Your task to perform on an android device: Search for hotels in San Francisco Image 0: 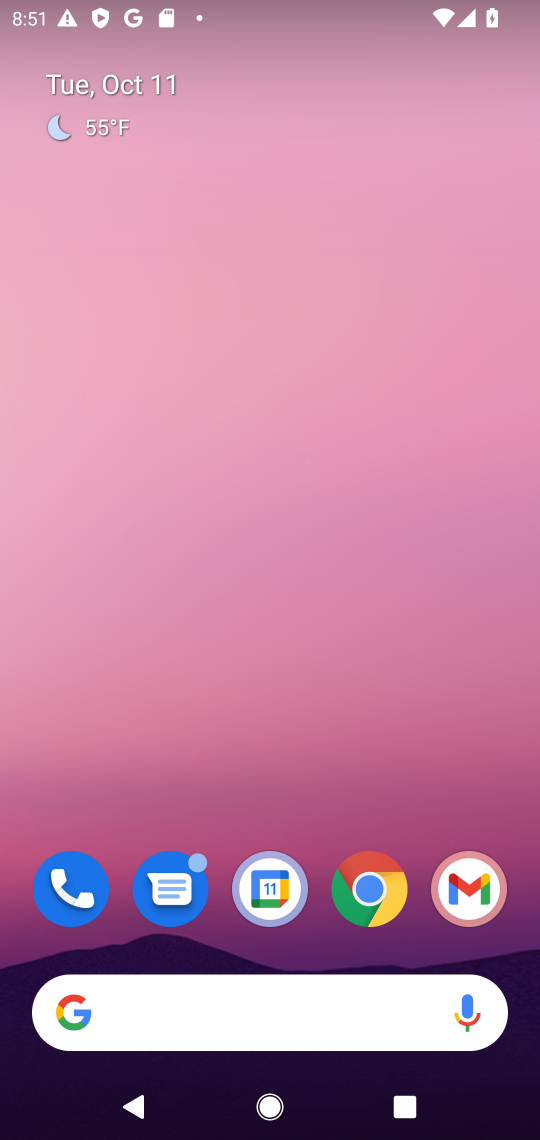
Step 0: click (276, 1031)
Your task to perform on an android device: Search for hotels in San Francisco Image 1: 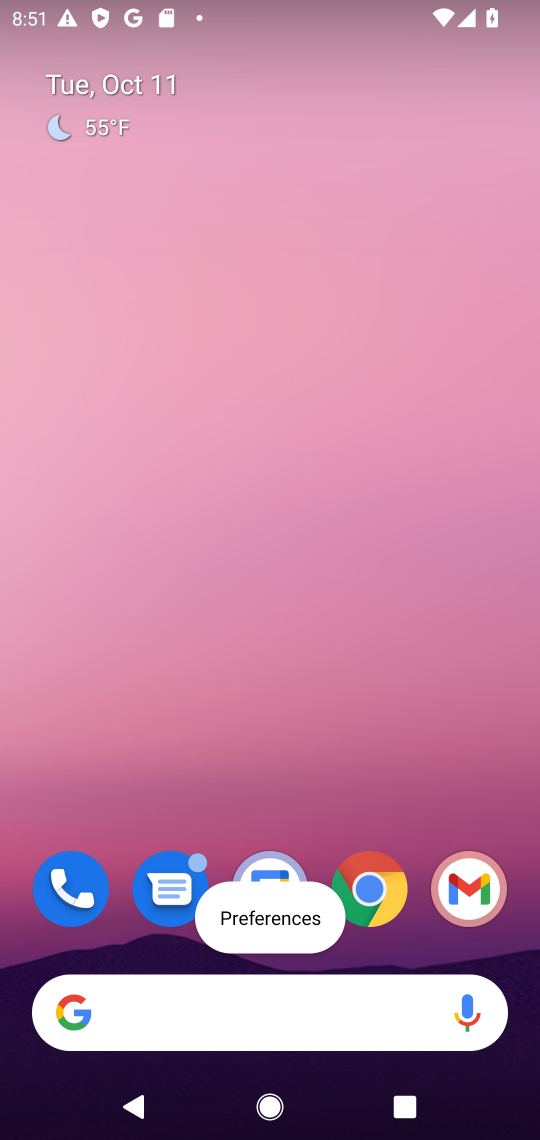
Step 1: click (200, 1014)
Your task to perform on an android device: Search for hotels in San Francisco Image 2: 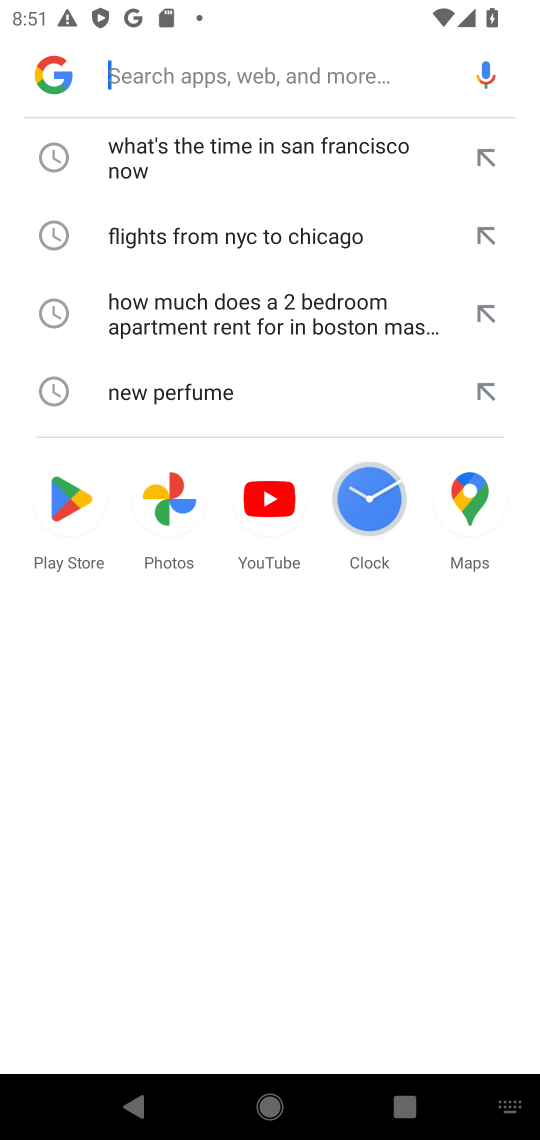
Step 2: click (247, 96)
Your task to perform on an android device: Search for hotels in San Francisco Image 3: 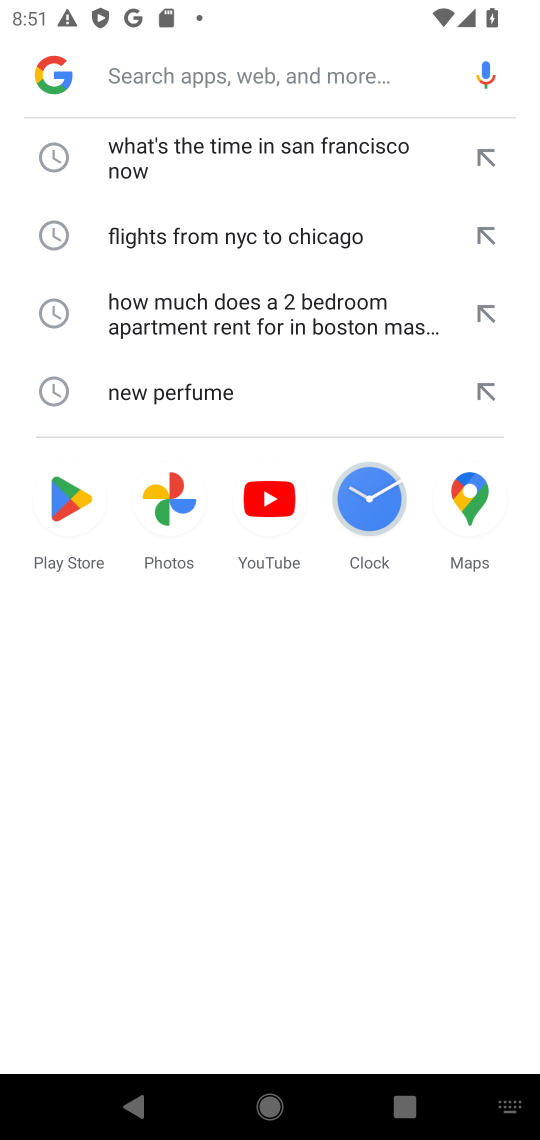
Step 3: type "hotels in San Francisco"
Your task to perform on an android device: Search for hotels in San Francisco Image 4: 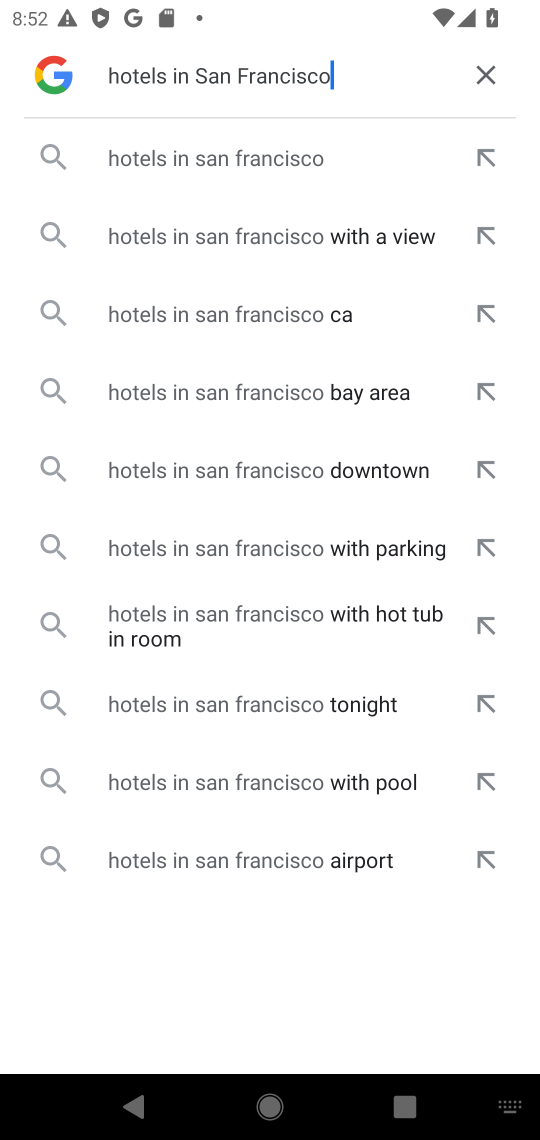
Step 4: click (184, 152)
Your task to perform on an android device: Search for hotels in San Francisco Image 5: 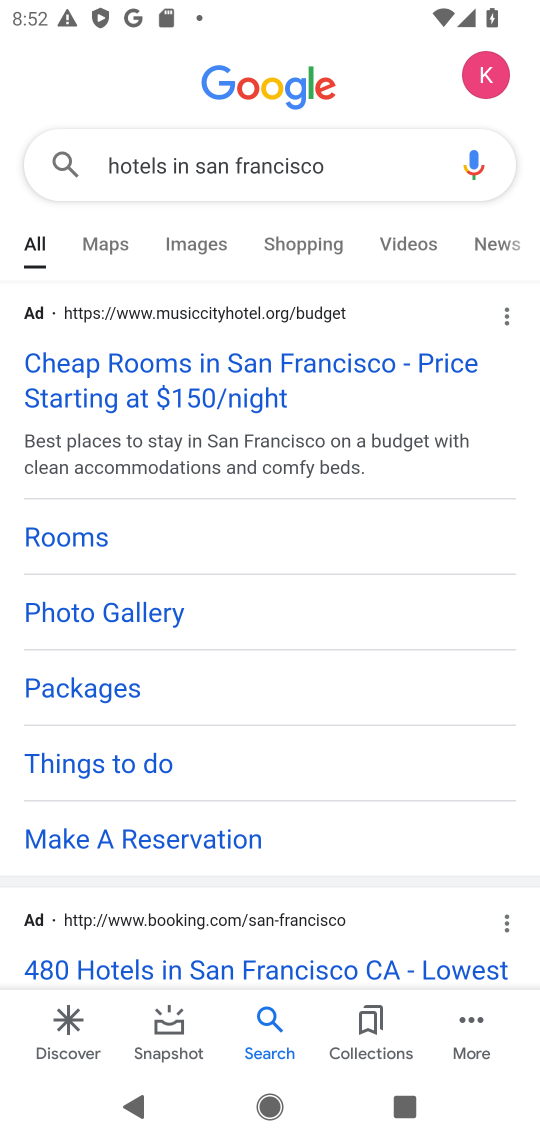
Step 5: task complete